Your task to perform on an android device: open a new tab in the chrome app Image 0: 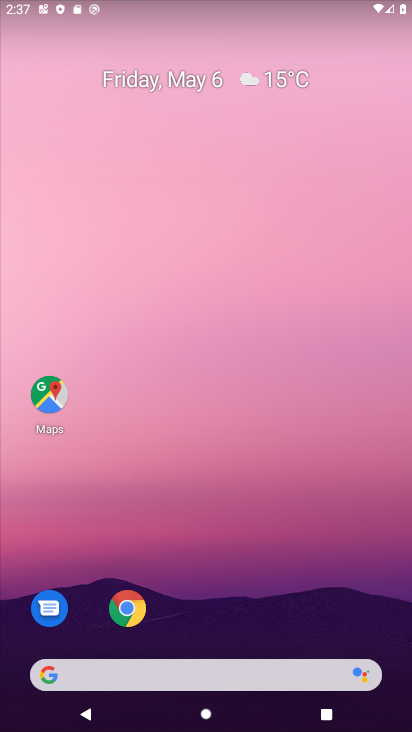
Step 0: click (131, 605)
Your task to perform on an android device: open a new tab in the chrome app Image 1: 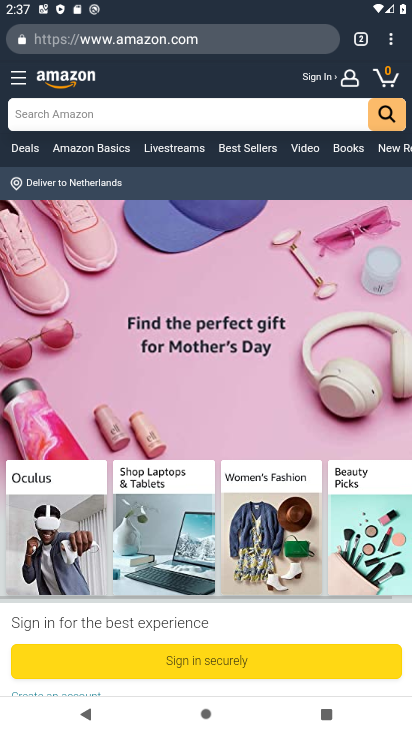
Step 1: click (392, 38)
Your task to perform on an android device: open a new tab in the chrome app Image 2: 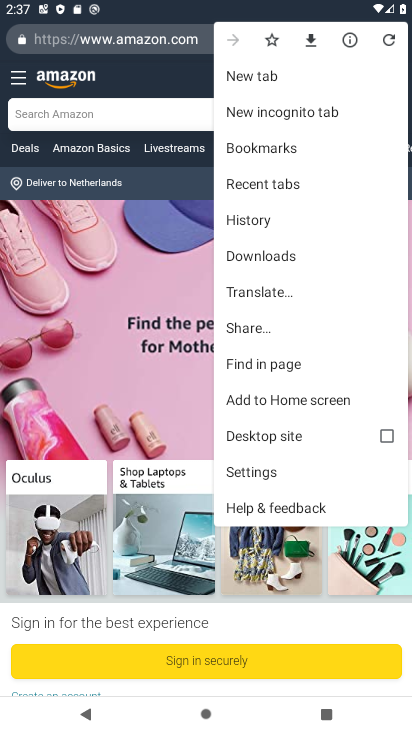
Step 2: click (282, 67)
Your task to perform on an android device: open a new tab in the chrome app Image 3: 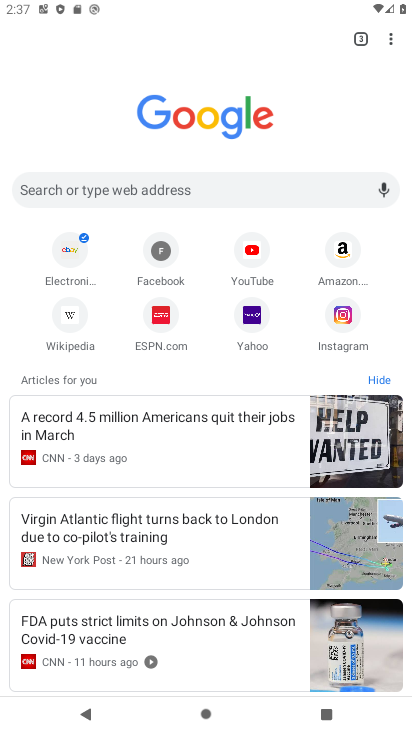
Step 3: task complete